Your task to perform on an android device: open chrome and create a bookmark for the current page Image 0: 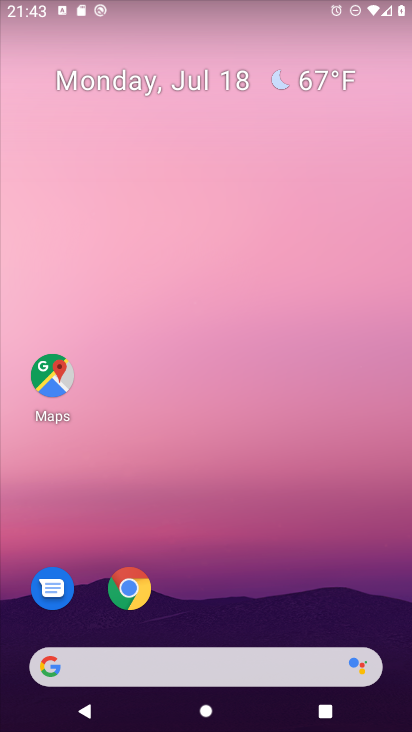
Step 0: click (129, 589)
Your task to perform on an android device: open chrome and create a bookmark for the current page Image 1: 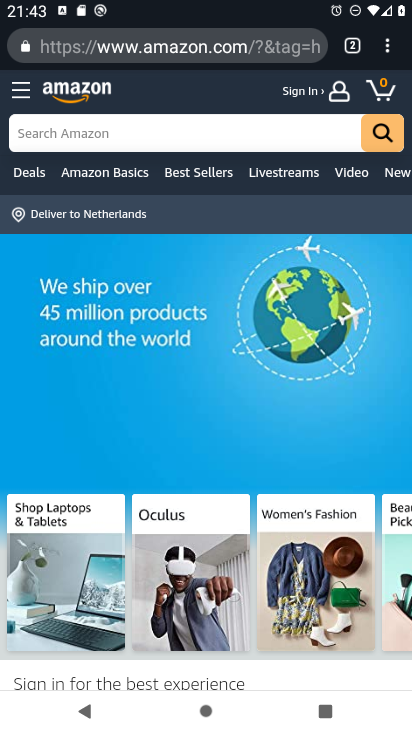
Step 1: click (387, 52)
Your task to perform on an android device: open chrome and create a bookmark for the current page Image 2: 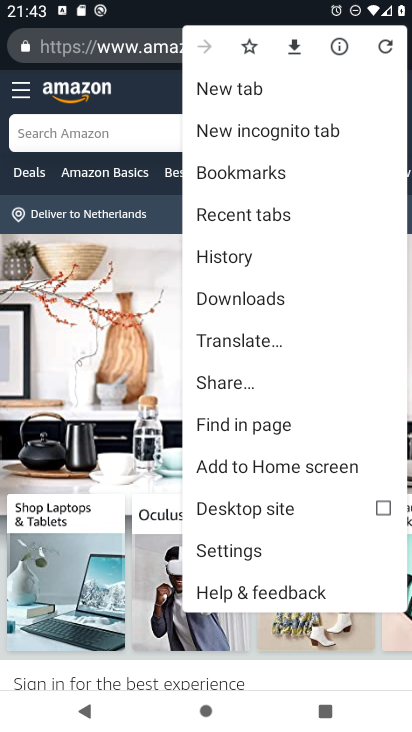
Step 2: click (250, 48)
Your task to perform on an android device: open chrome and create a bookmark for the current page Image 3: 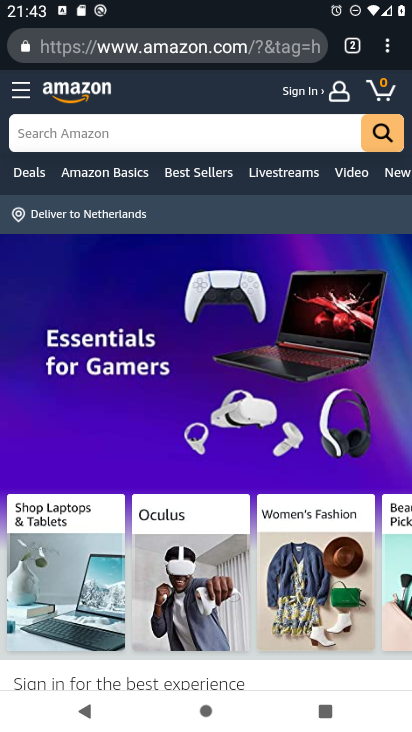
Step 3: task complete